Your task to perform on an android device: Go to eBay Image 0: 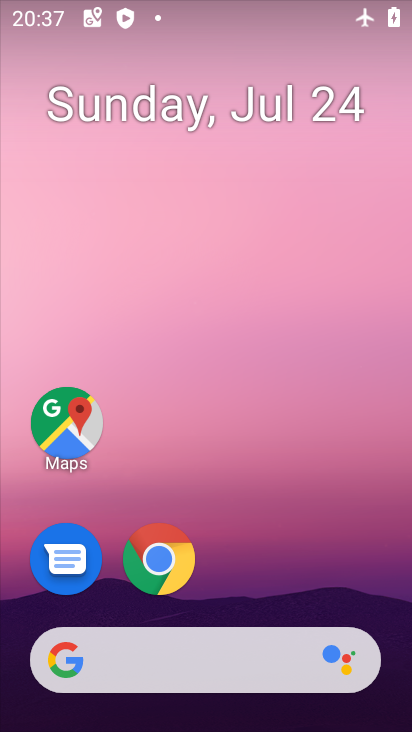
Step 0: press home button
Your task to perform on an android device: Go to eBay Image 1: 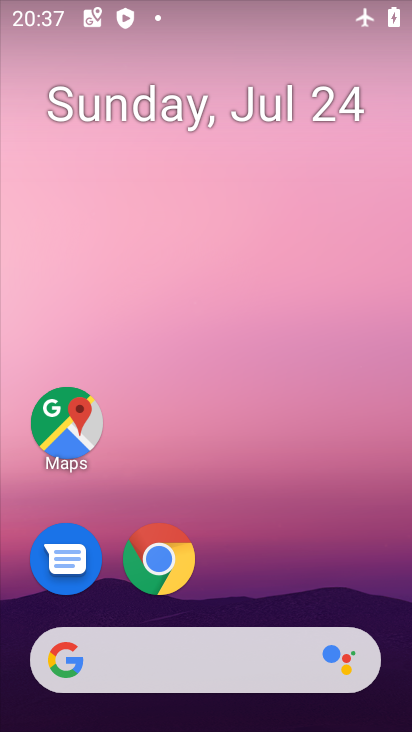
Step 1: drag from (366, 592) to (370, 93)
Your task to perform on an android device: Go to eBay Image 2: 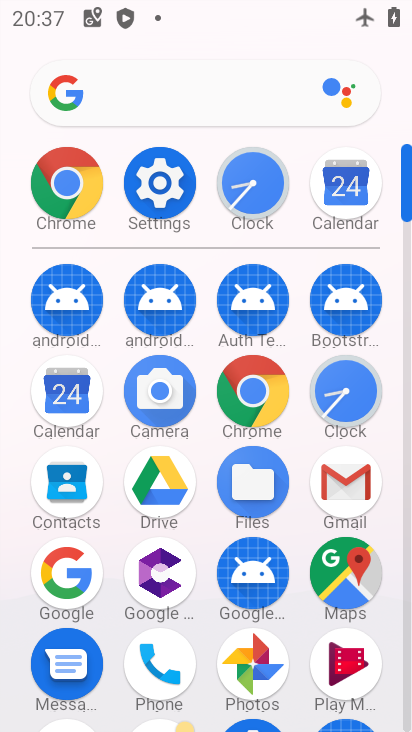
Step 2: click (253, 388)
Your task to perform on an android device: Go to eBay Image 3: 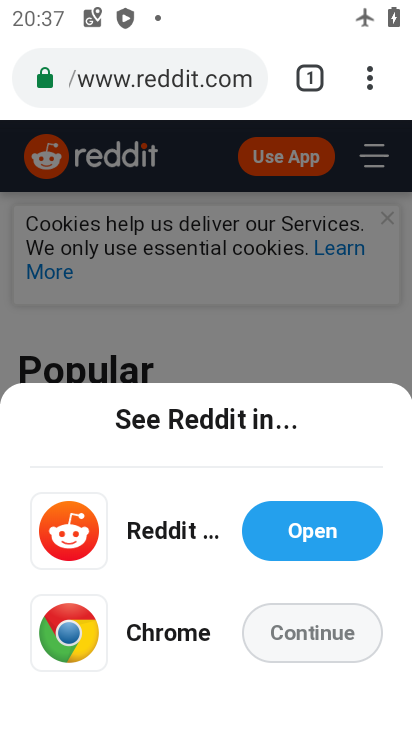
Step 3: click (191, 79)
Your task to perform on an android device: Go to eBay Image 4: 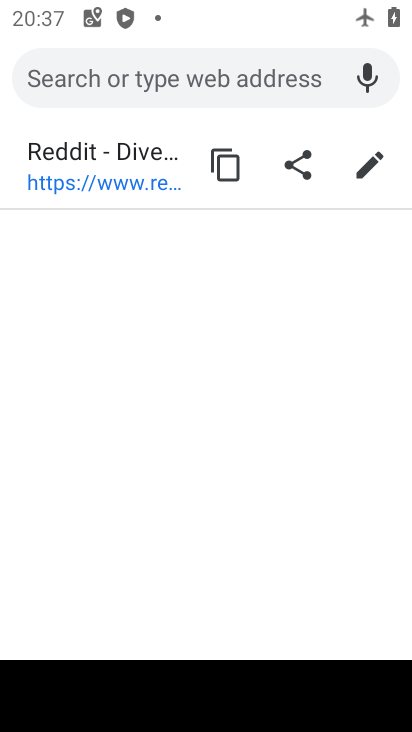
Step 4: type "ebay"
Your task to perform on an android device: Go to eBay Image 5: 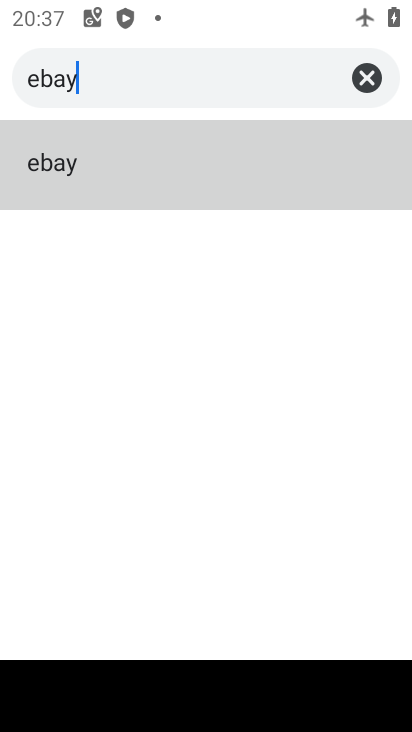
Step 5: click (366, 165)
Your task to perform on an android device: Go to eBay Image 6: 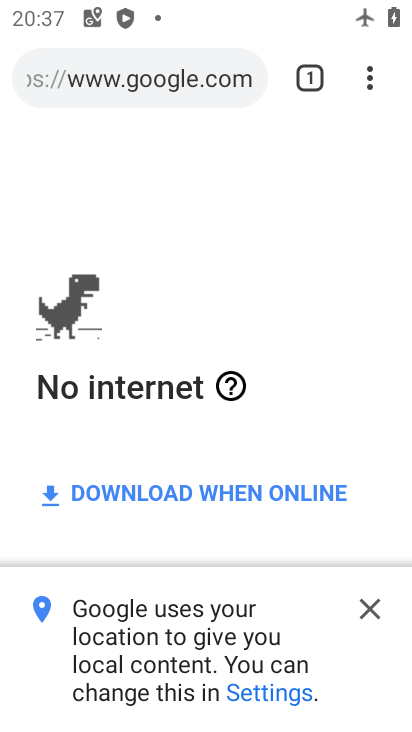
Step 6: task complete